Your task to perform on an android device: open app "Yahoo Mail" (install if not already installed) and go to login screen Image 0: 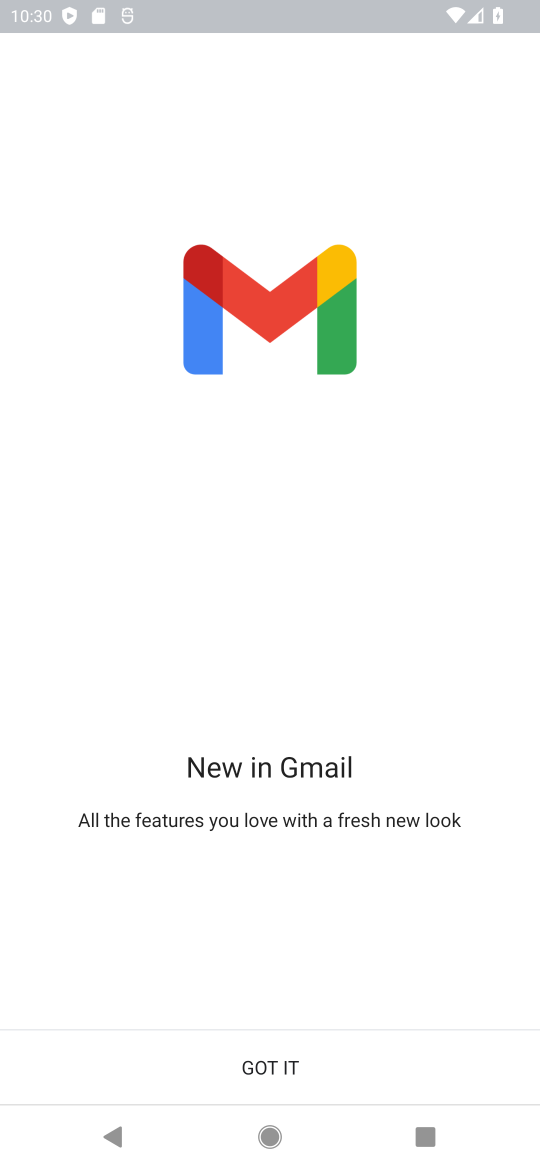
Step 0: press home button
Your task to perform on an android device: open app "Yahoo Mail" (install if not already installed) and go to login screen Image 1: 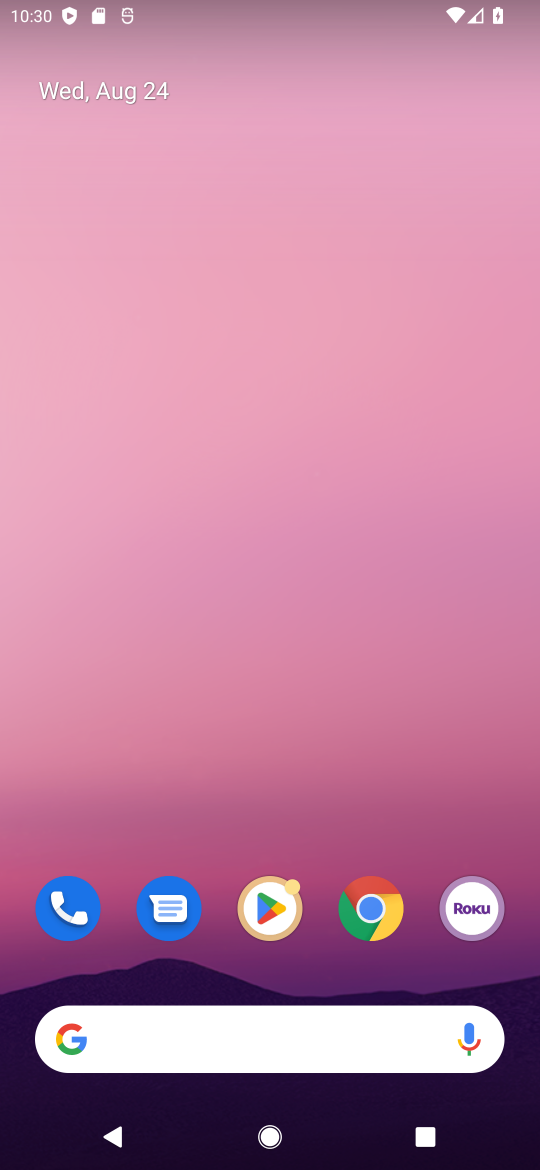
Step 1: click (260, 904)
Your task to perform on an android device: open app "Yahoo Mail" (install if not already installed) and go to login screen Image 2: 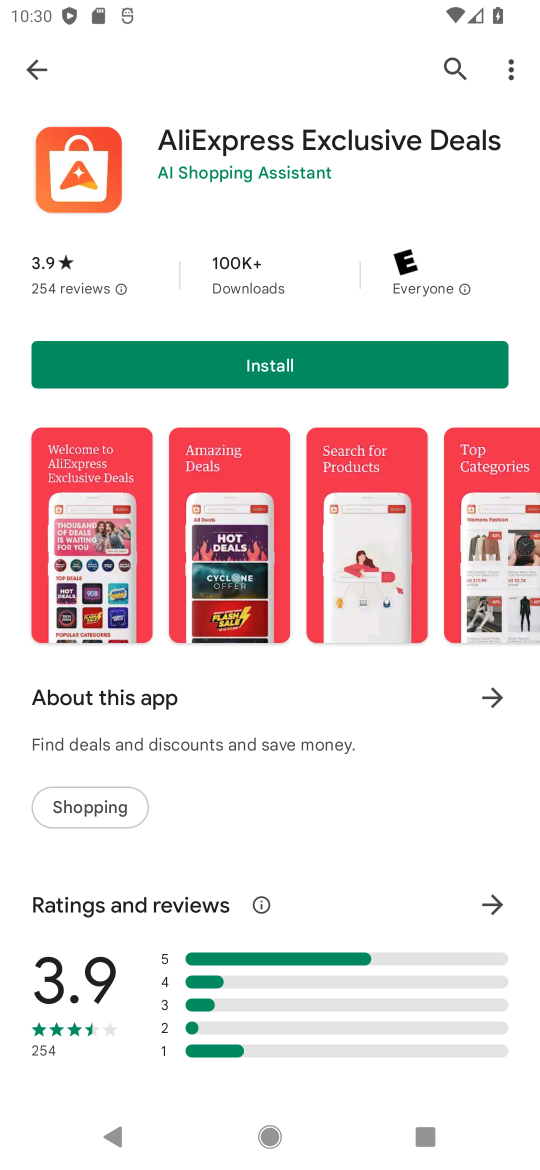
Step 2: click (28, 53)
Your task to perform on an android device: open app "Yahoo Mail" (install if not already installed) and go to login screen Image 3: 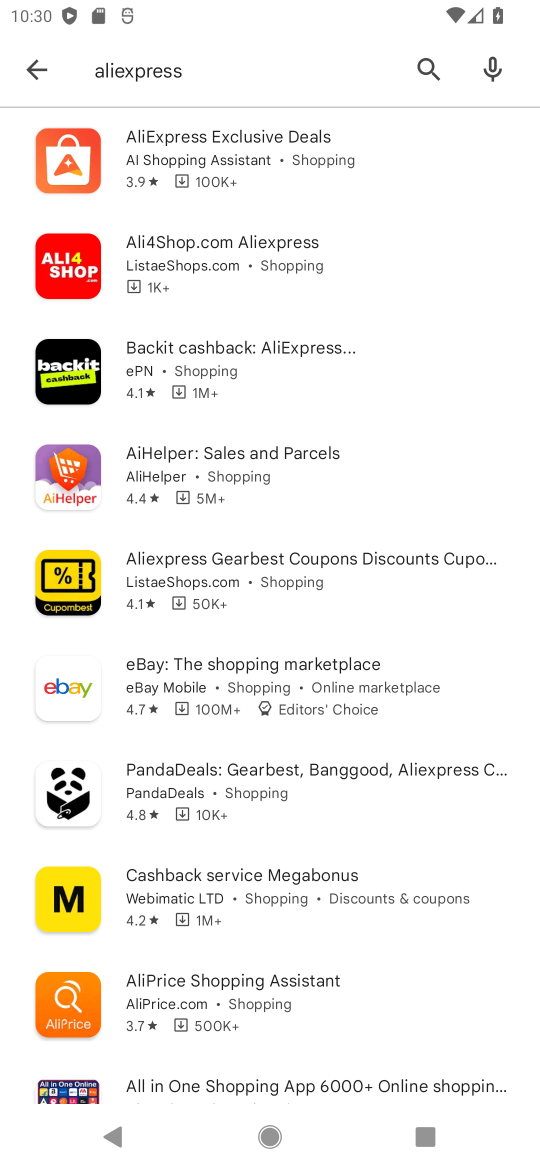
Step 3: click (53, 66)
Your task to perform on an android device: open app "Yahoo Mail" (install if not already installed) and go to login screen Image 4: 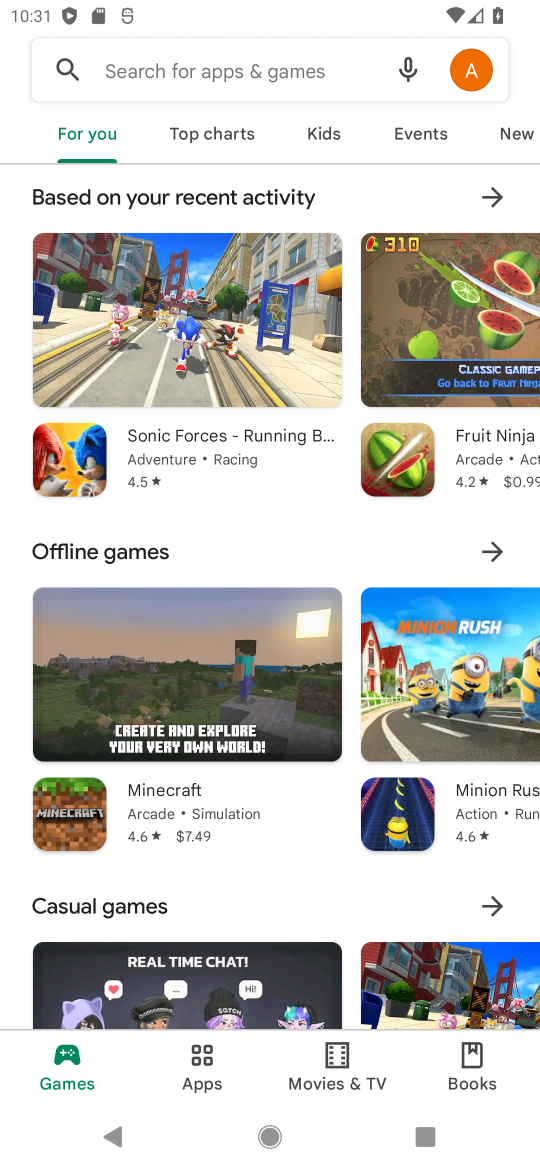
Step 4: click (131, 55)
Your task to perform on an android device: open app "Yahoo Mail" (install if not already installed) and go to login screen Image 5: 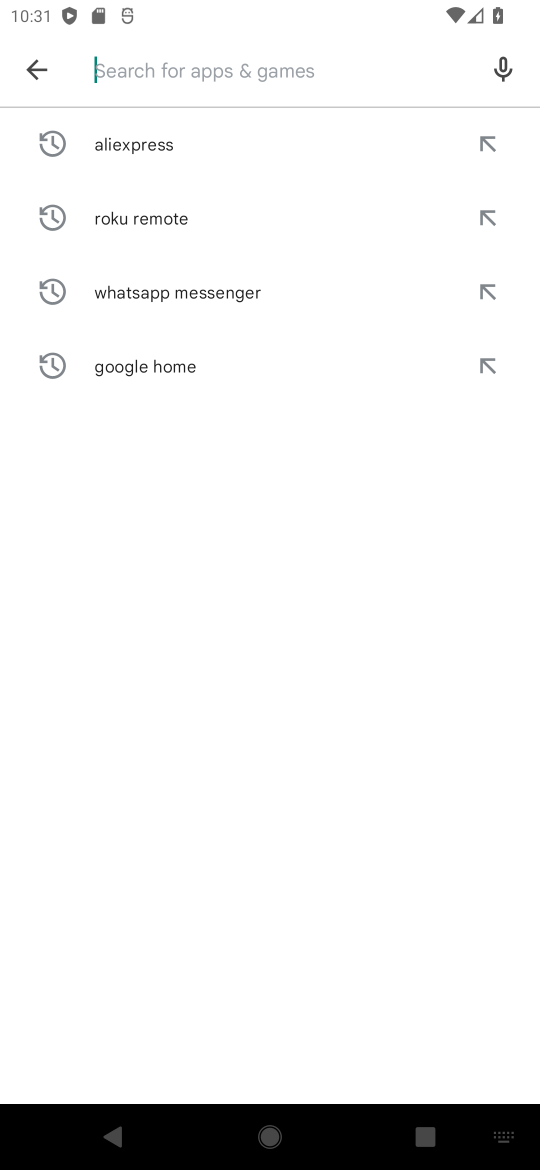
Step 5: type "Yahoo Mail"
Your task to perform on an android device: open app "Yahoo Mail" (install if not already installed) and go to login screen Image 6: 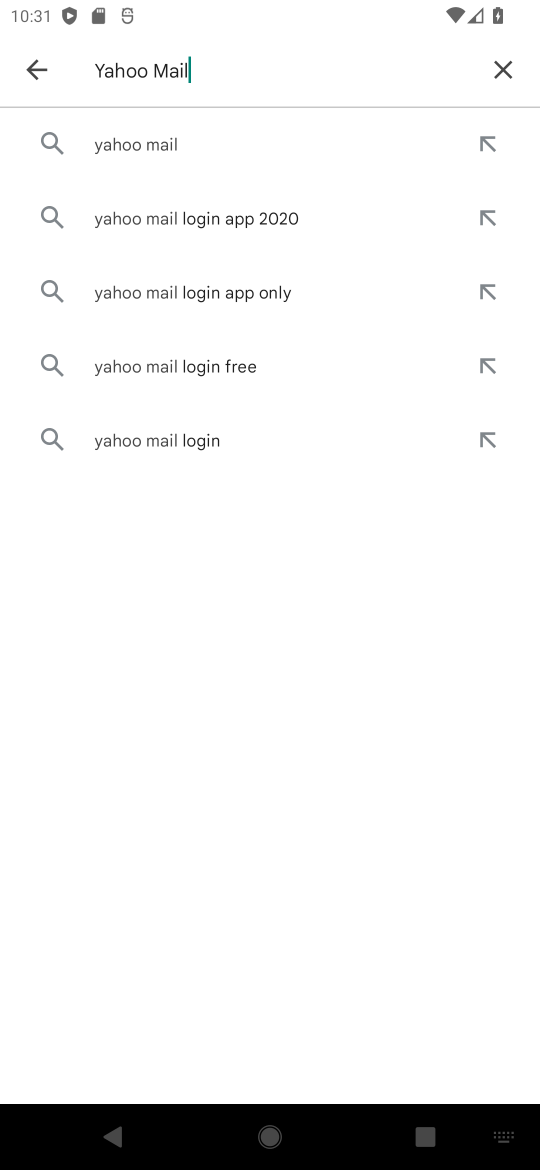
Step 6: click (146, 135)
Your task to perform on an android device: open app "Yahoo Mail" (install if not already installed) and go to login screen Image 7: 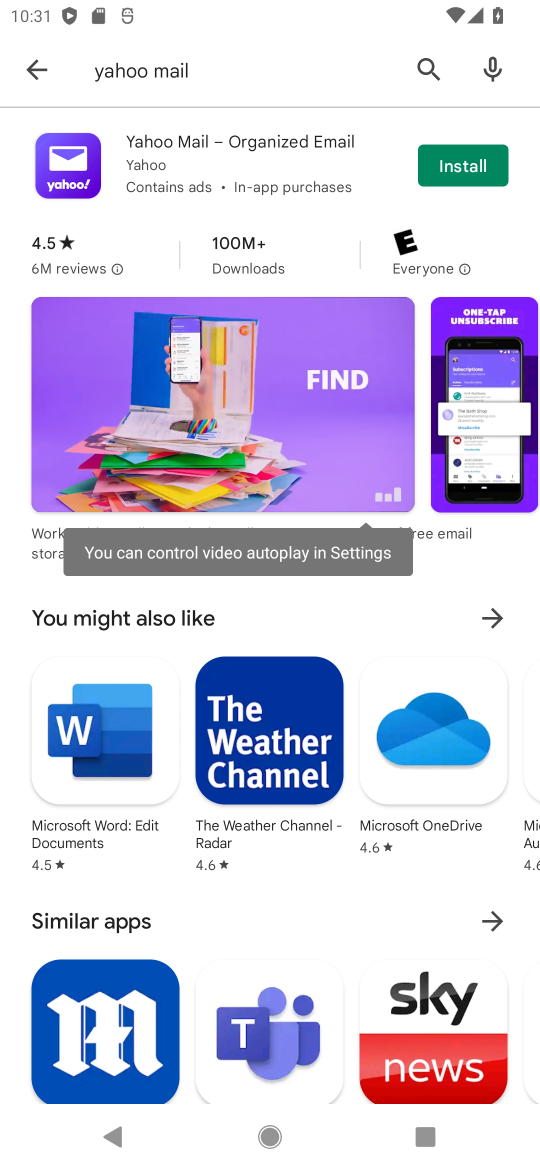
Step 7: click (485, 181)
Your task to perform on an android device: open app "Yahoo Mail" (install if not already installed) and go to login screen Image 8: 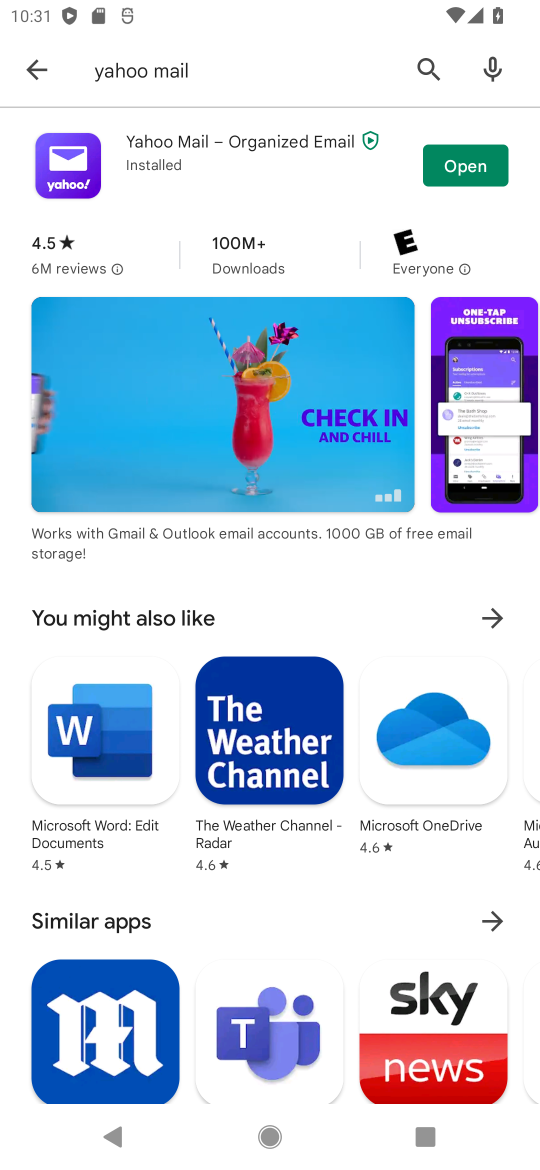
Step 8: click (485, 181)
Your task to perform on an android device: open app "Yahoo Mail" (install if not already installed) and go to login screen Image 9: 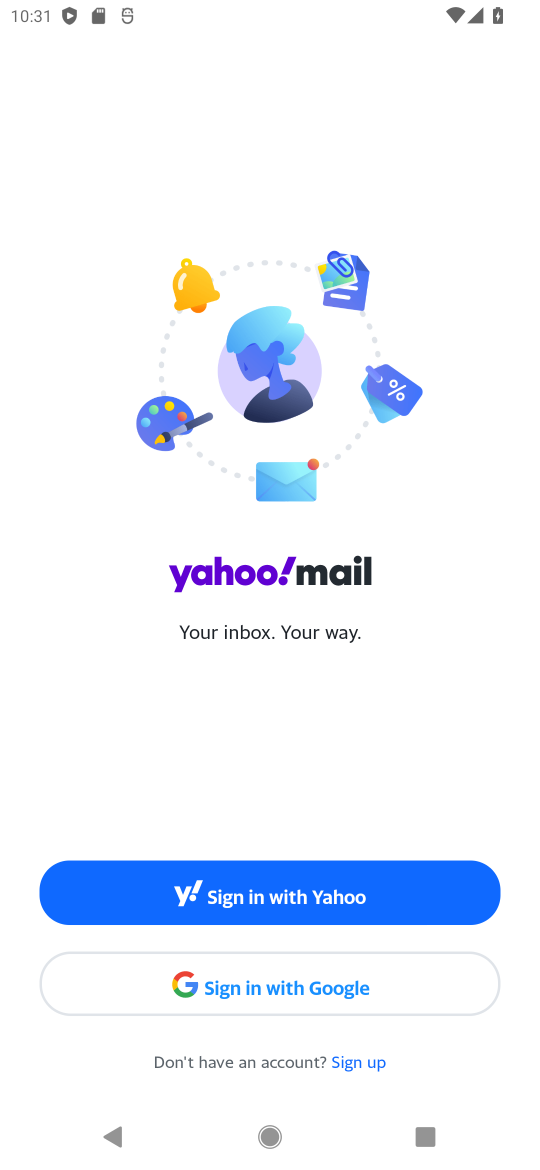
Step 9: click (314, 909)
Your task to perform on an android device: open app "Yahoo Mail" (install if not already installed) and go to login screen Image 10: 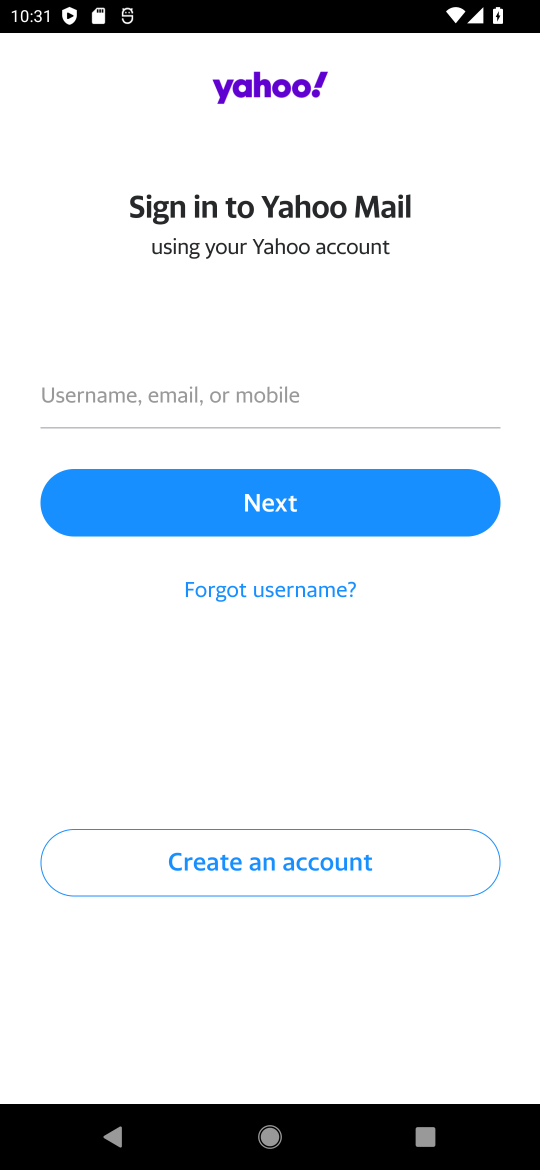
Step 10: task complete